Your task to perform on an android device: set the timer Image 0: 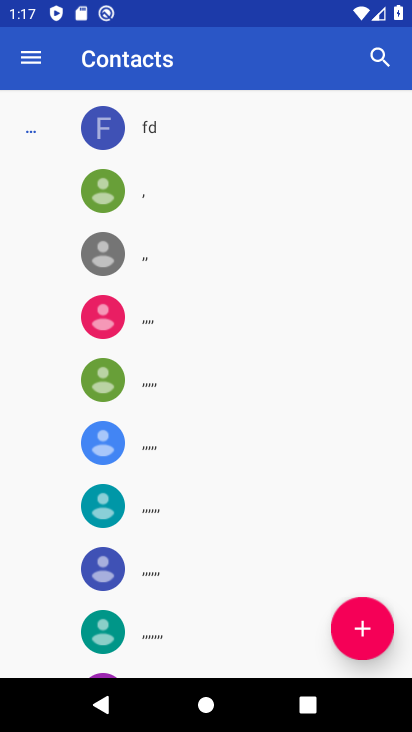
Step 0: press home button
Your task to perform on an android device: set the timer Image 1: 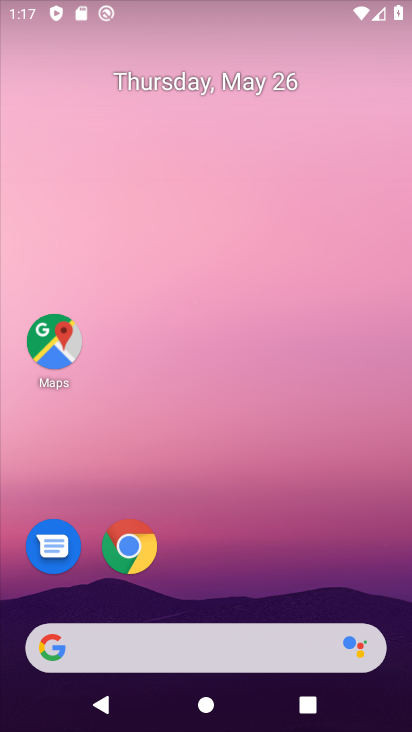
Step 1: drag from (252, 553) to (311, 124)
Your task to perform on an android device: set the timer Image 2: 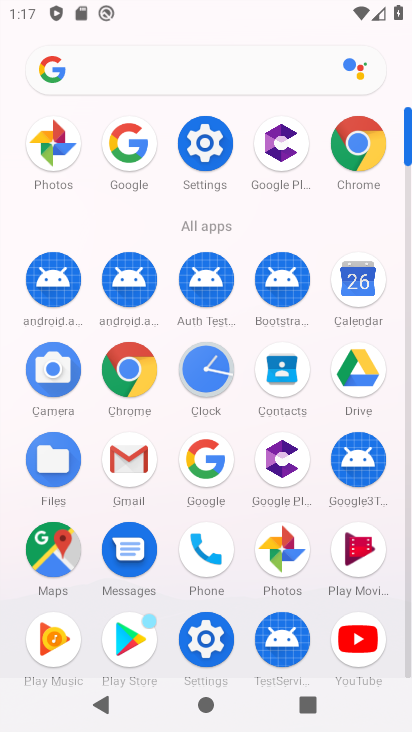
Step 2: click (200, 365)
Your task to perform on an android device: set the timer Image 3: 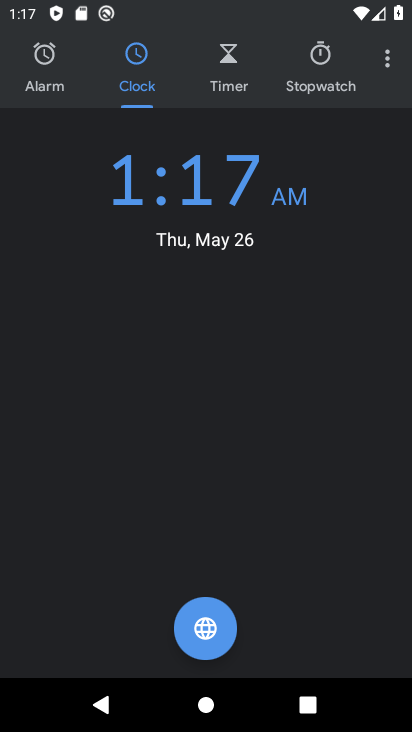
Step 3: click (217, 74)
Your task to perform on an android device: set the timer Image 4: 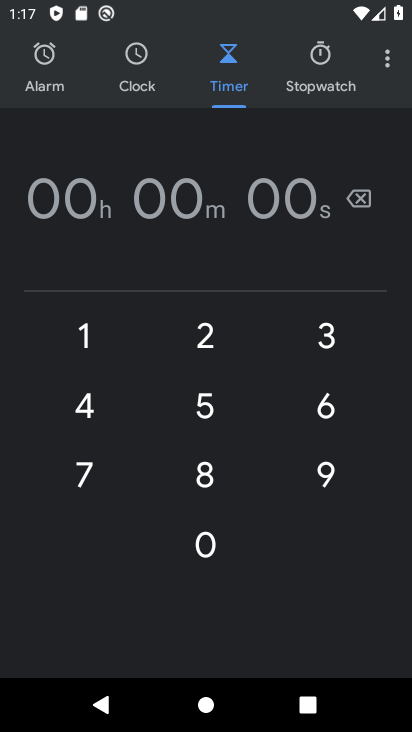
Step 4: click (203, 333)
Your task to perform on an android device: set the timer Image 5: 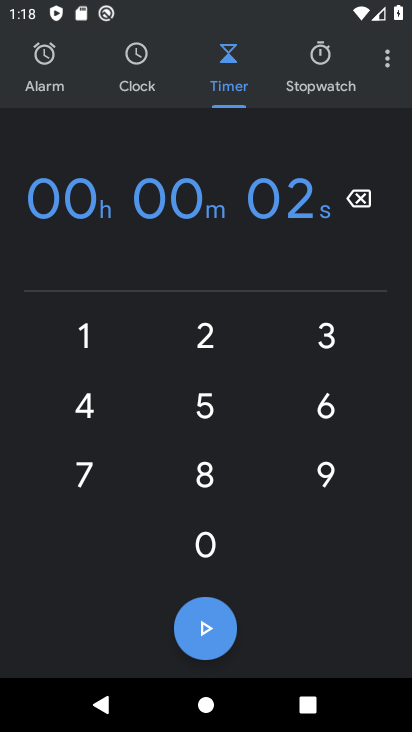
Step 5: task complete